Your task to perform on an android device: turn off improve location accuracy Image 0: 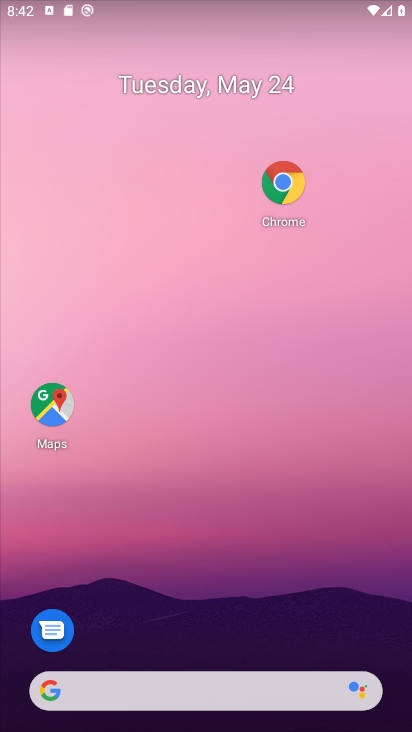
Step 0: drag from (251, 711) to (223, 298)
Your task to perform on an android device: turn off improve location accuracy Image 1: 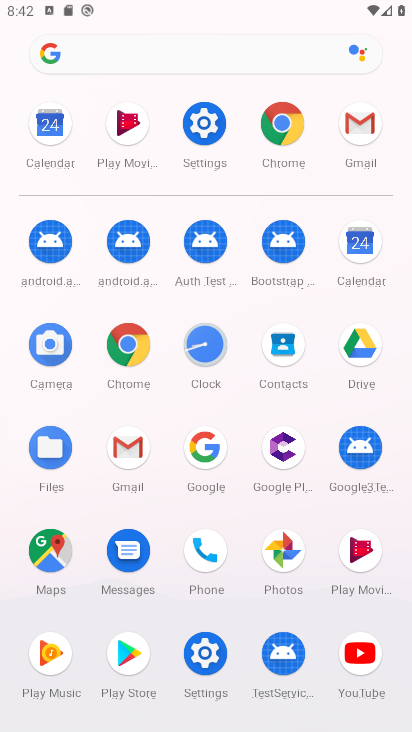
Step 1: click (197, 141)
Your task to perform on an android device: turn off improve location accuracy Image 2: 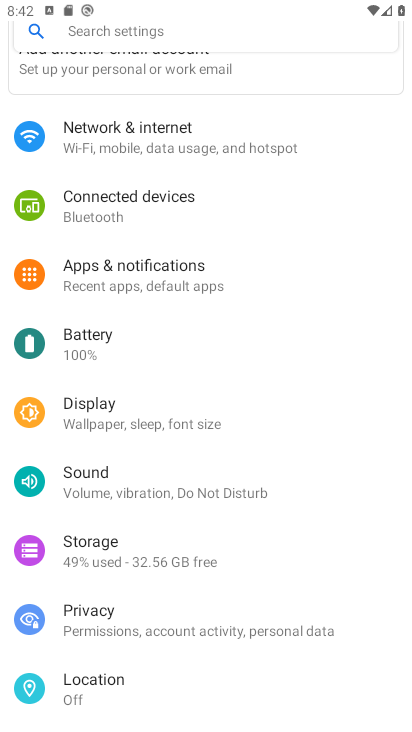
Step 2: click (151, 33)
Your task to perform on an android device: turn off improve location accuracy Image 3: 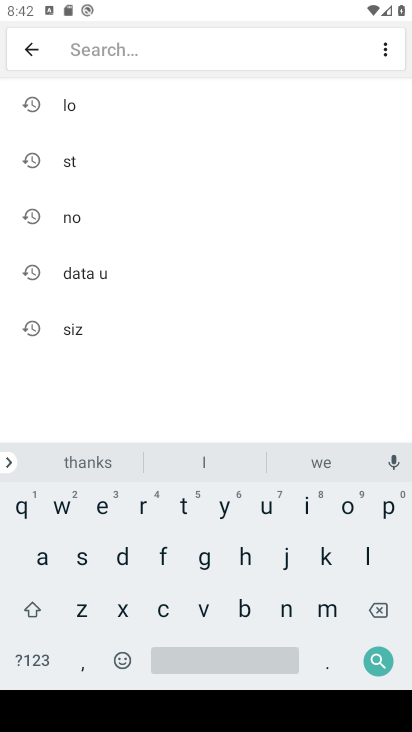
Step 3: click (103, 109)
Your task to perform on an android device: turn off improve location accuracy Image 4: 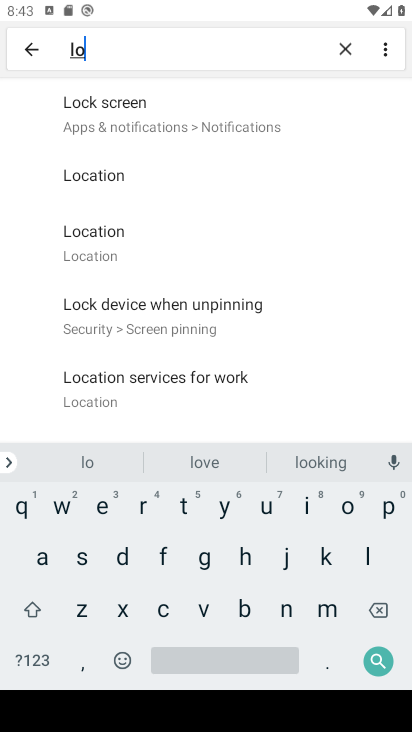
Step 4: click (110, 243)
Your task to perform on an android device: turn off improve location accuracy Image 5: 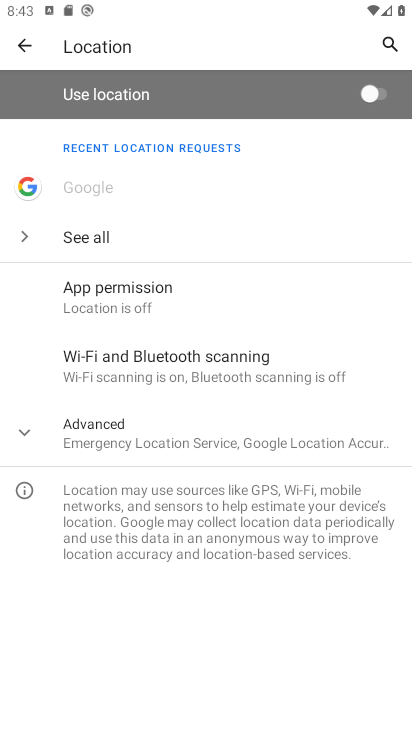
Step 5: click (44, 447)
Your task to perform on an android device: turn off improve location accuracy Image 6: 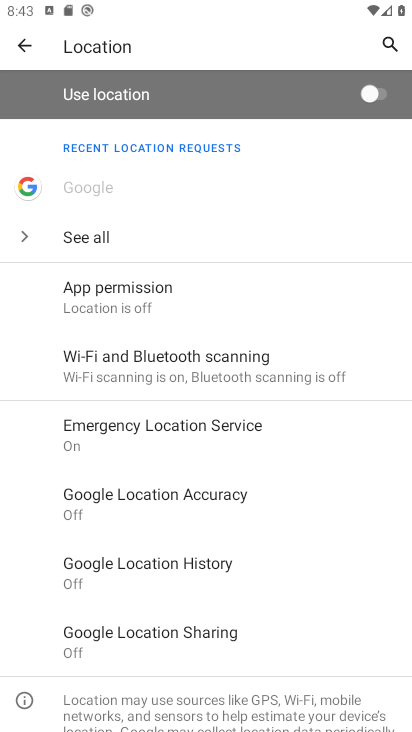
Step 6: click (161, 493)
Your task to perform on an android device: turn off improve location accuracy Image 7: 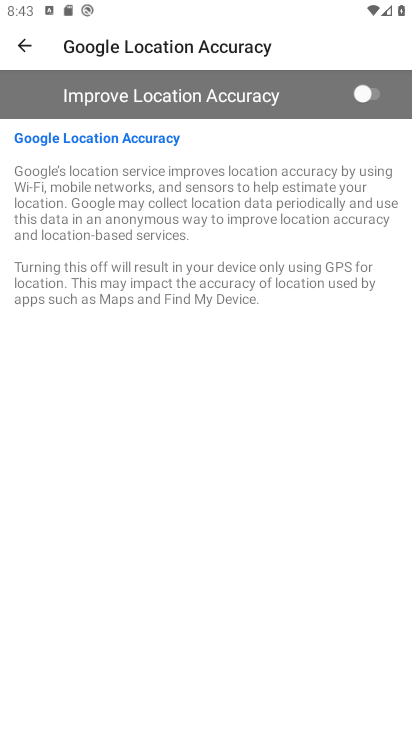
Step 7: click (359, 91)
Your task to perform on an android device: turn off improve location accuracy Image 8: 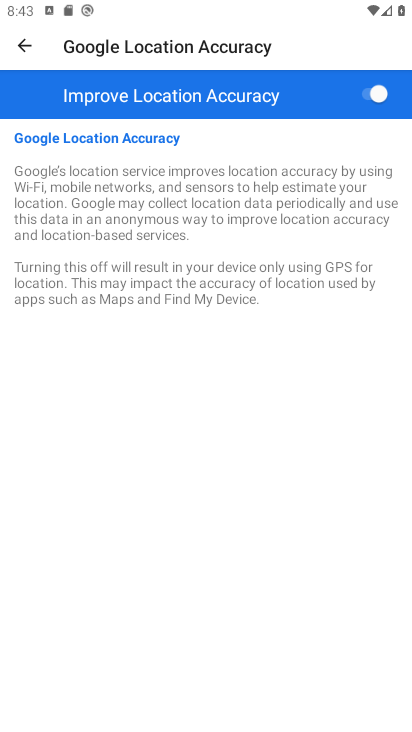
Step 8: click (359, 91)
Your task to perform on an android device: turn off improve location accuracy Image 9: 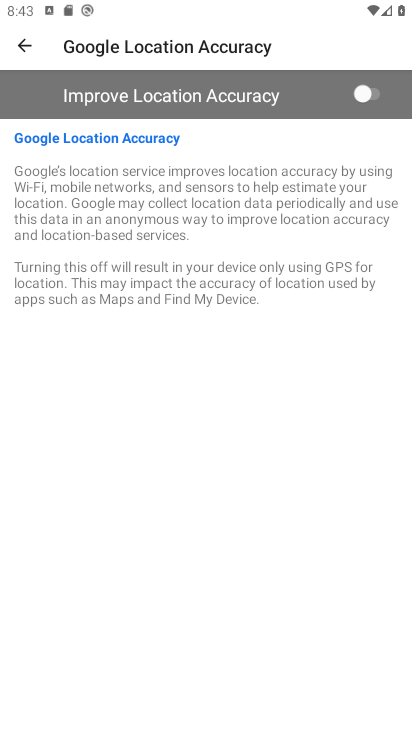
Step 9: task complete